Your task to perform on an android device: move an email to a new category in the gmail app Image 0: 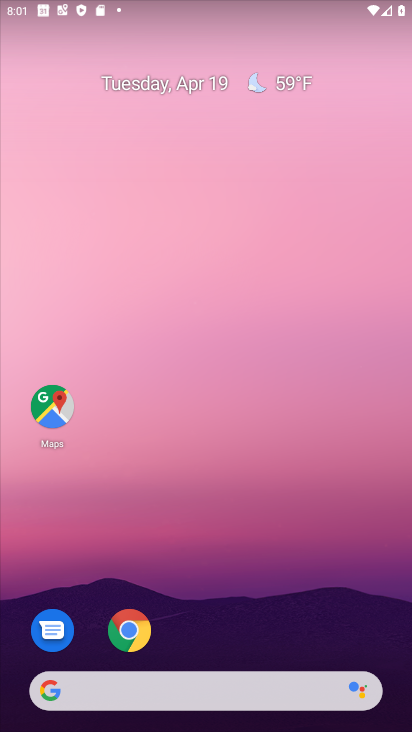
Step 0: drag from (187, 575) to (260, 29)
Your task to perform on an android device: move an email to a new category in the gmail app Image 1: 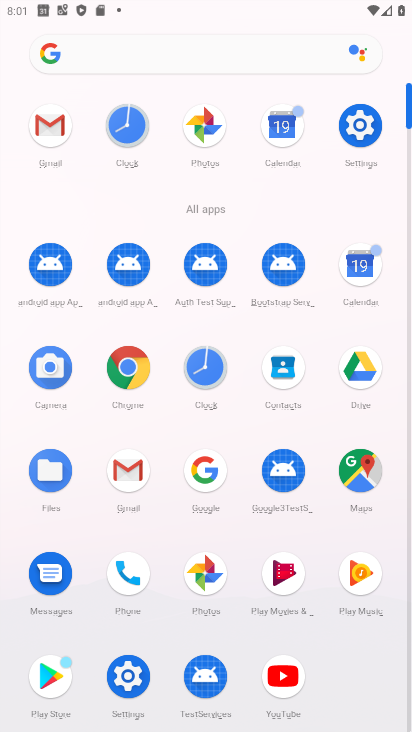
Step 1: click (48, 124)
Your task to perform on an android device: move an email to a new category in the gmail app Image 2: 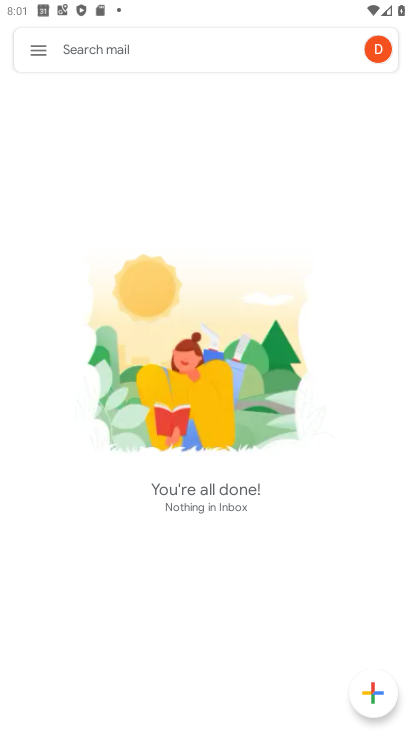
Step 2: click (41, 59)
Your task to perform on an android device: move an email to a new category in the gmail app Image 3: 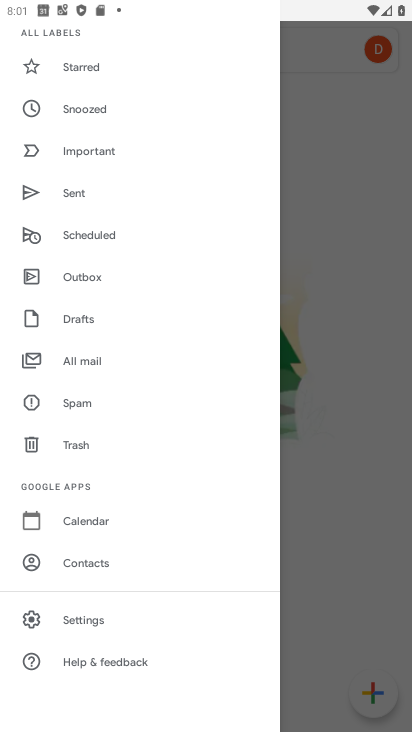
Step 3: drag from (142, 137) to (167, 552)
Your task to perform on an android device: move an email to a new category in the gmail app Image 4: 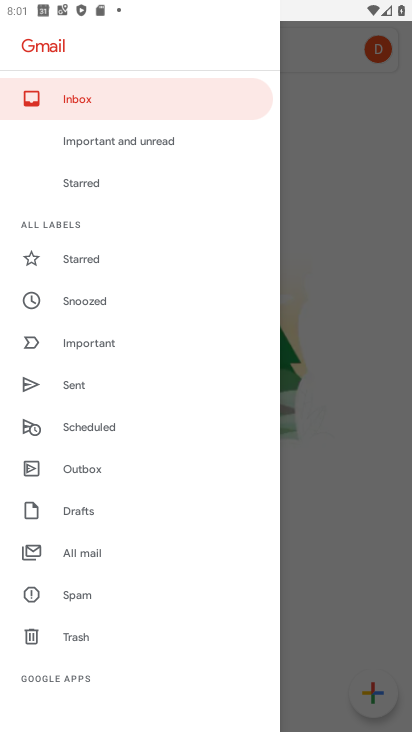
Step 4: click (126, 108)
Your task to perform on an android device: move an email to a new category in the gmail app Image 5: 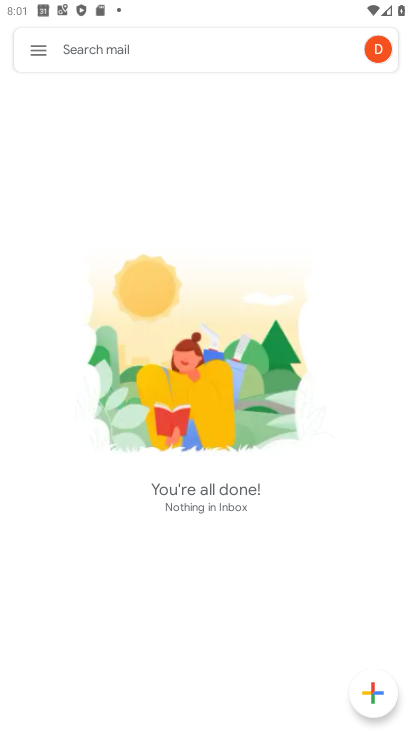
Step 5: task complete